Your task to perform on an android device: visit the assistant section in the google photos Image 0: 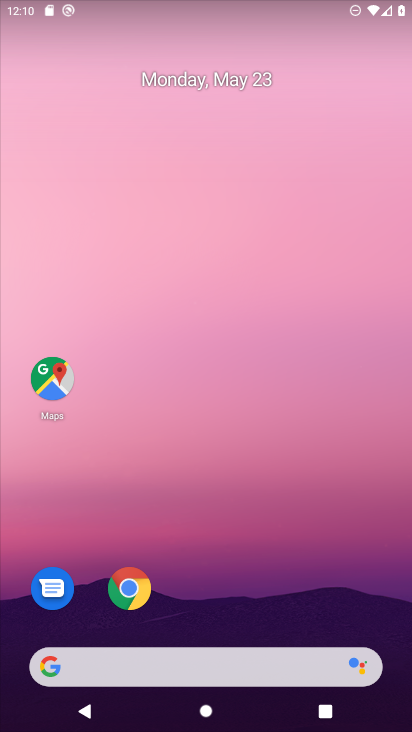
Step 0: drag from (277, 664) to (233, 204)
Your task to perform on an android device: visit the assistant section in the google photos Image 1: 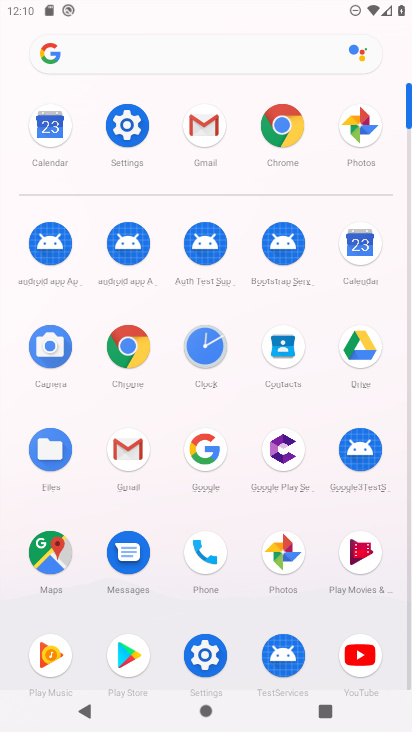
Step 1: click (291, 566)
Your task to perform on an android device: visit the assistant section in the google photos Image 2: 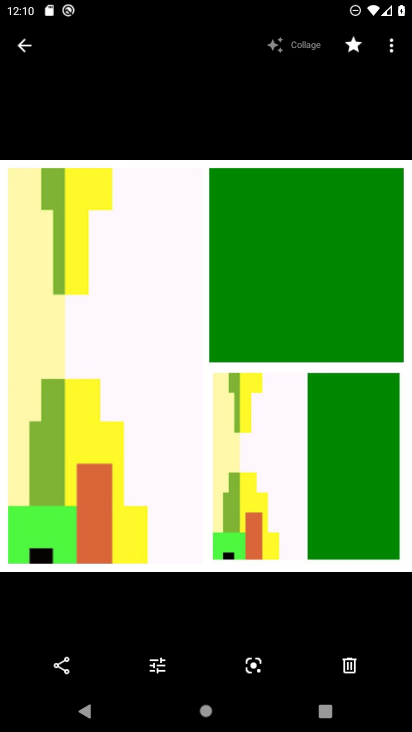
Step 2: click (9, 47)
Your task to perform on an android device: visit the assistant section in the google photos Image 3: 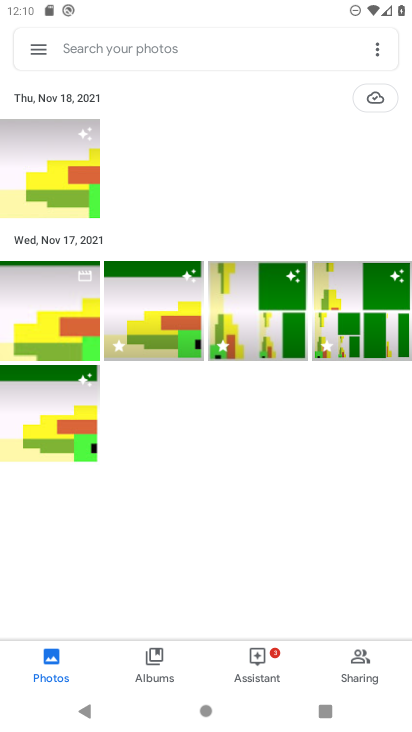
Step 3: click (266, 663)
Your task to perform on an android device: visit the assistant section in the google photos Image 4: 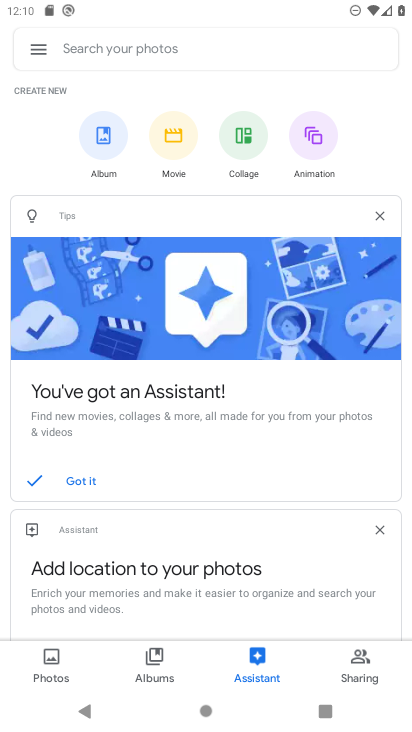
Step 4: task complete